Your task to perform on an android device: Turn on the flashlight Image 0: 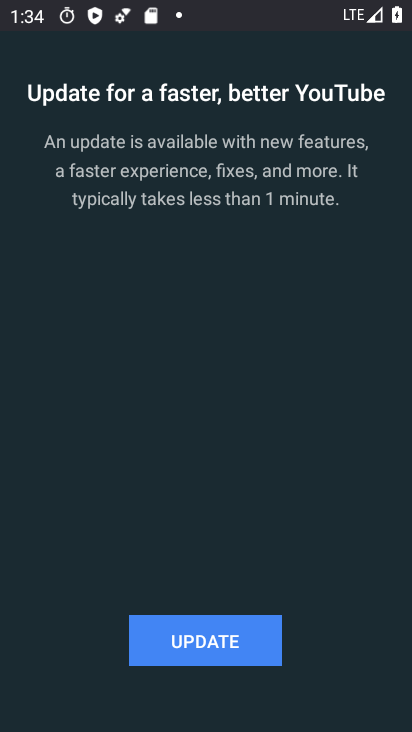
Step 0: press home button
Your task to perform on an android device: Turn on the flashlight Image 1: 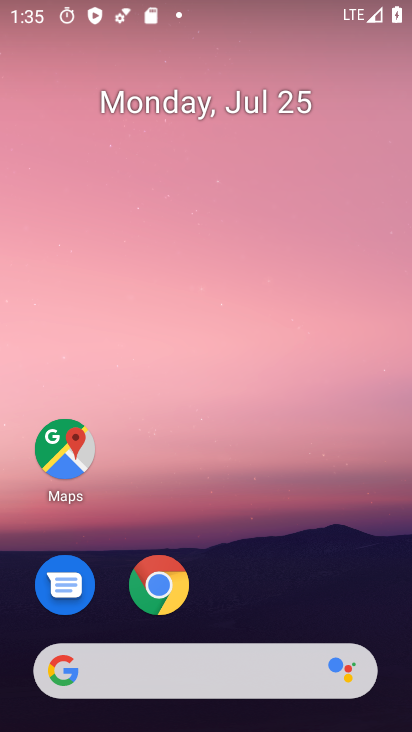
Step 1: drag from (212, 643) to (217, 96)
Your task to perform on an android device: Turn on the flashlight Image 2: 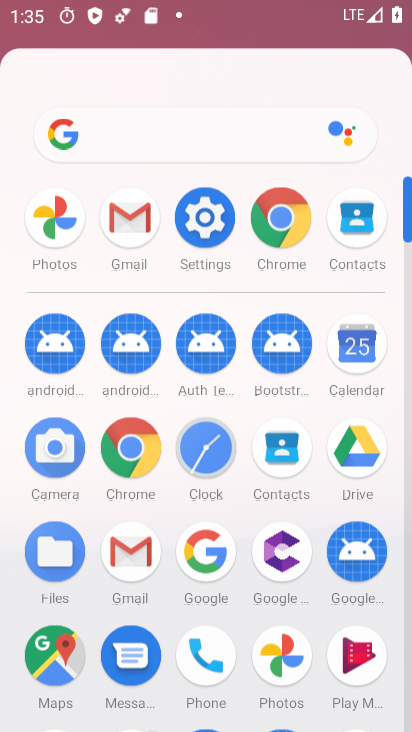
Step 2: click (217, 96)
Your task to perform on an android device: Turn on the flashlight Image 3: 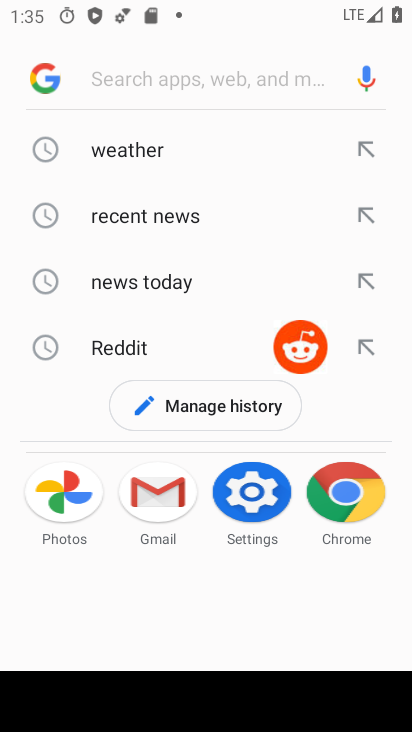
Step 3: task complete